Your task to perform on an android device: Search for seafood restaurants on Google Maps Image 0: 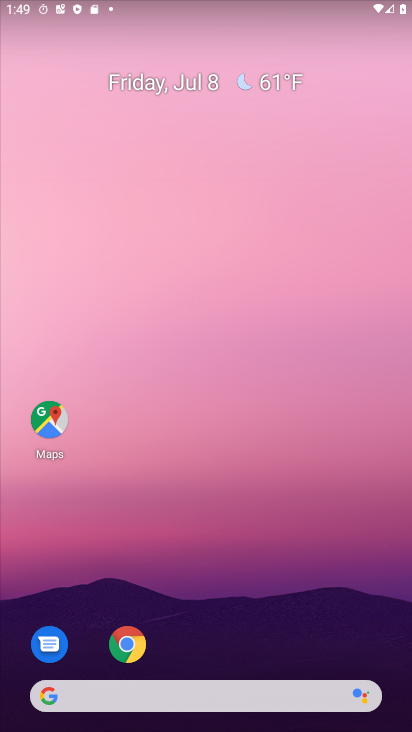
Step 0: drag from (195, 317) to (180, 9)
Your task to perform on an android device: Search for seafood restaurants on Google Maps Image 1: 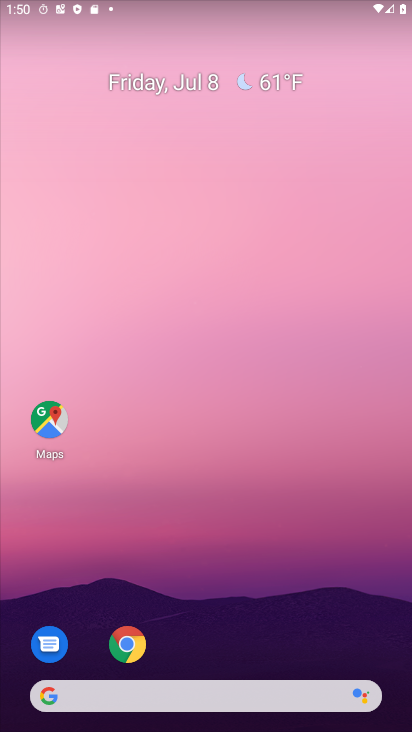
Step 1: click (49, 421)
Your task to perform on an android device: Search for seafood restaurants on Google Maps Image 2: 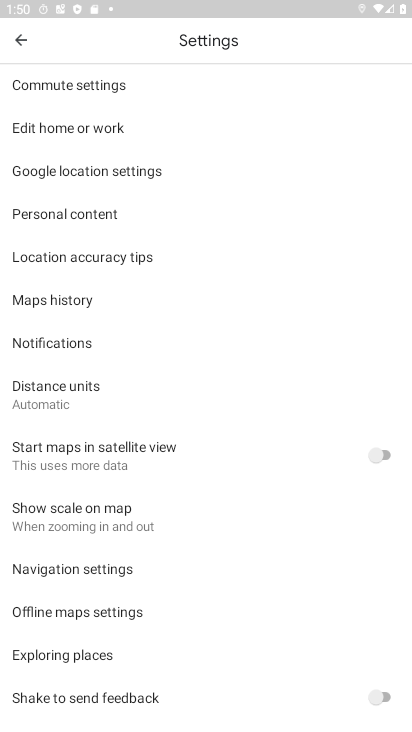
Step 2: click (19, 42)
Your task to perform on an android device: Search for seafood restaurants on Google Maps Image 3: 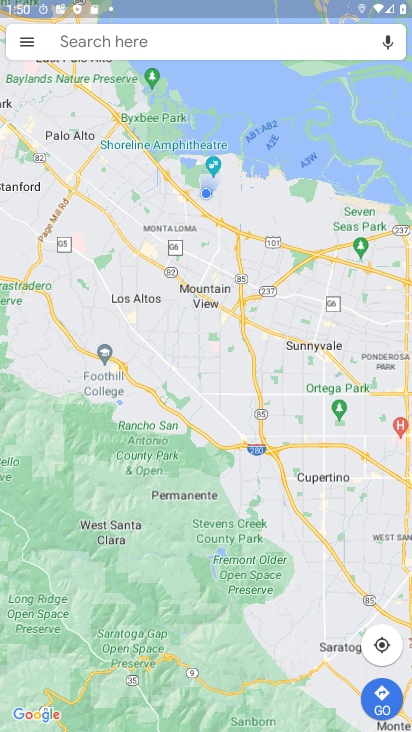
Step 3: click (19, 42)
Your task to perform on an android device: Search for seafood restaurants on Google Maps Image 4: 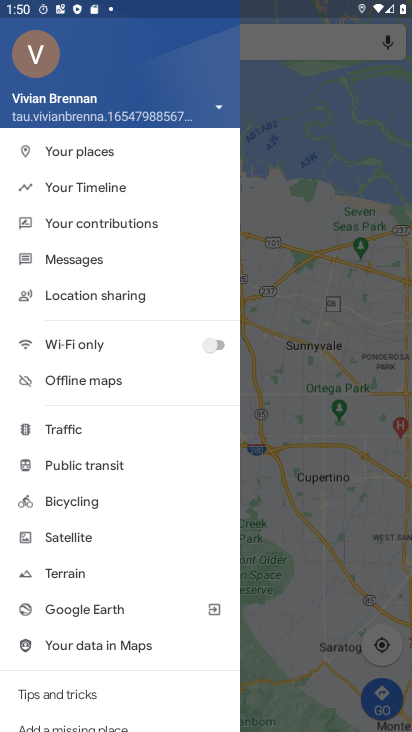
Step 4: press back button
Your task to perform on an android device: Search for seafood restaurants on Google Maps Image 5: 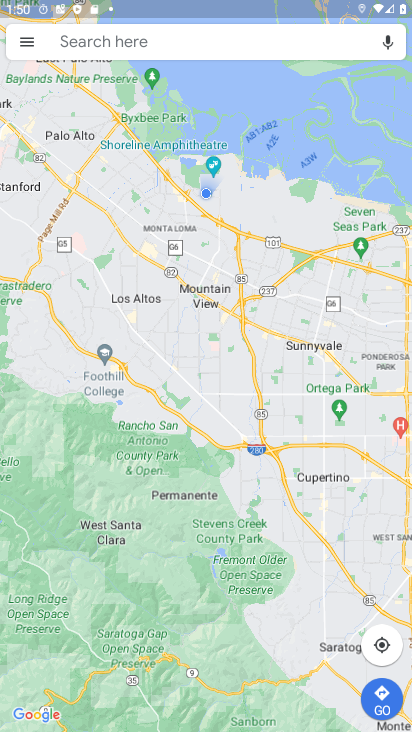
Step 5: click (226, 48)
Your task to perform on an android device: Search for seafood restaurants on Google Maps Image 6: 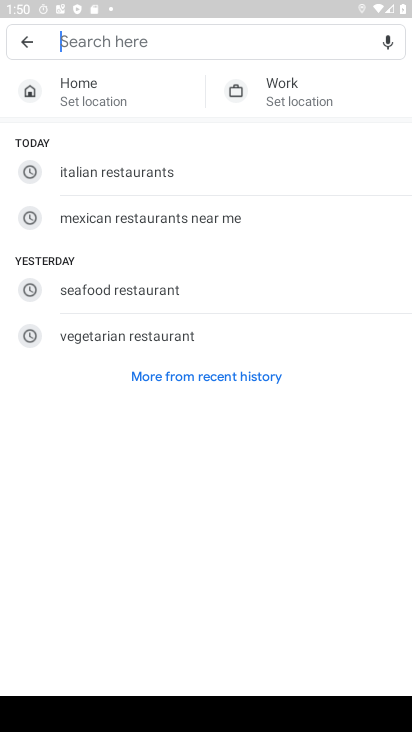
Step 6: click (149, 291)
Your task to perform on an android device: Search for seafood restaurants on Google Maps Image 7: 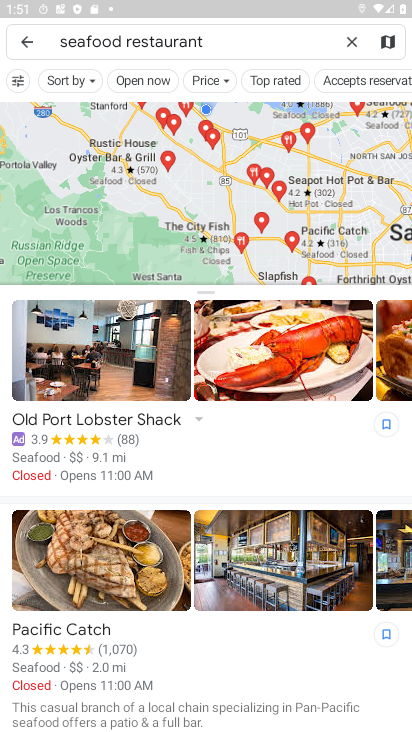
Step 7: task complete